Your task to perform on an android device: toggle notifications settings in the gmail app Image 0: 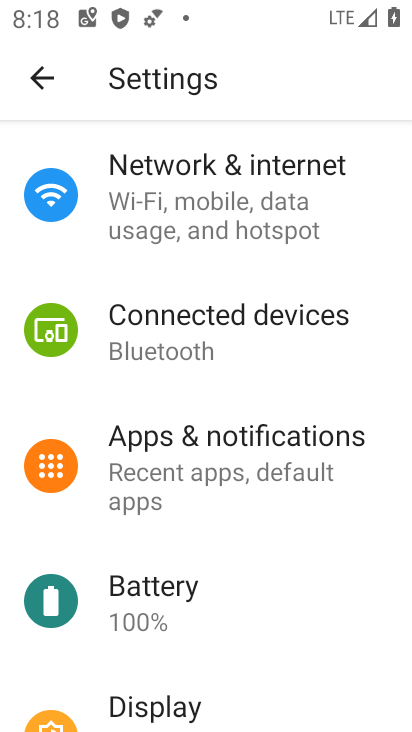
Step 0: press home button
Your task to perform on an android device: toggle notifications settings in the gmail app Image 1: 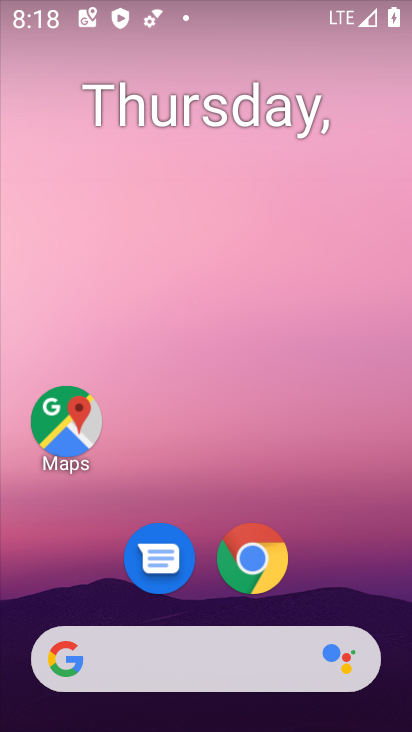
Step 1: drag from (248, 618) to (323, 62)
Your task to perform on an android device: toggle notifications settings in the gmail app Image 2: 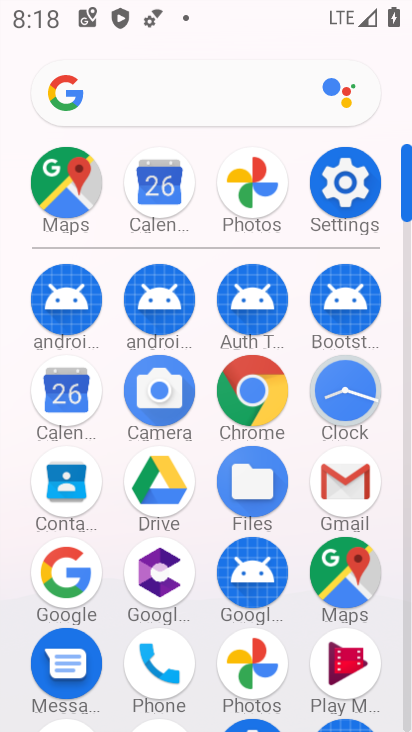
Step 2: click (342, 482)
Your task to perform on an android device: toggle notifications settings in the gmail app Image 3: 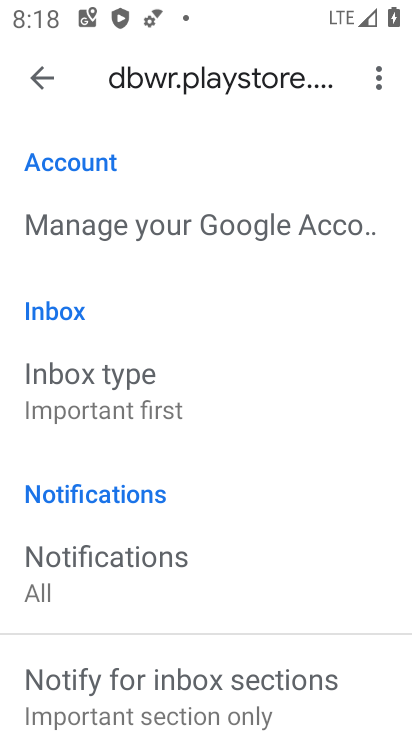
Step 3: click (42, 86)
Your task to perform on an android device: toggle notifications settings in the gmail app Image 4: 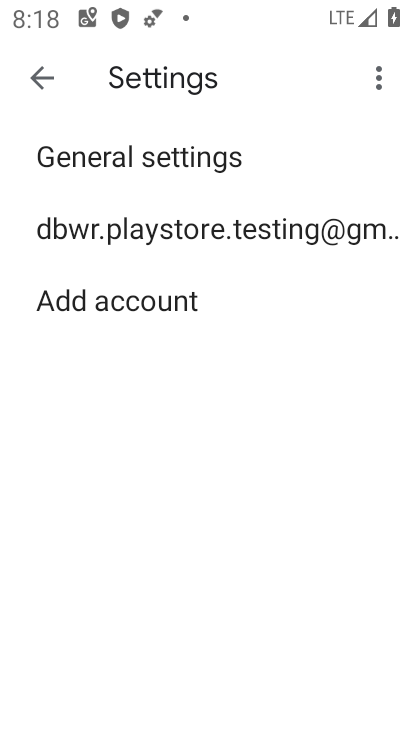
Step 4: click (92, 159)
Your task to perform on an android device: toggle notifications settings in the gmail app Image 5: 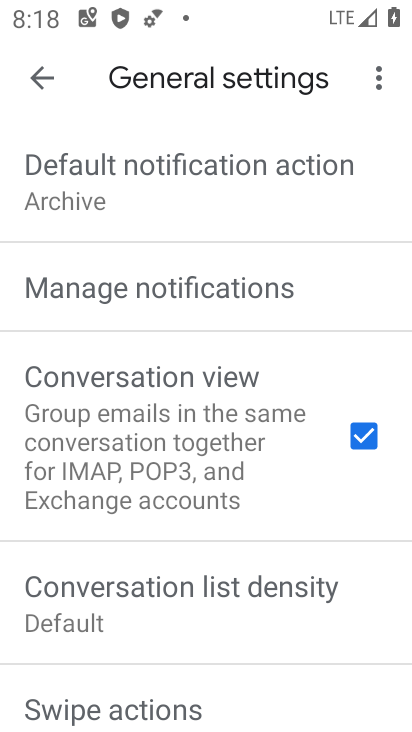
Step 5: click (171, 293)
Your task to perform on an android device: toggle notifications settings in the gmail app Image 6: 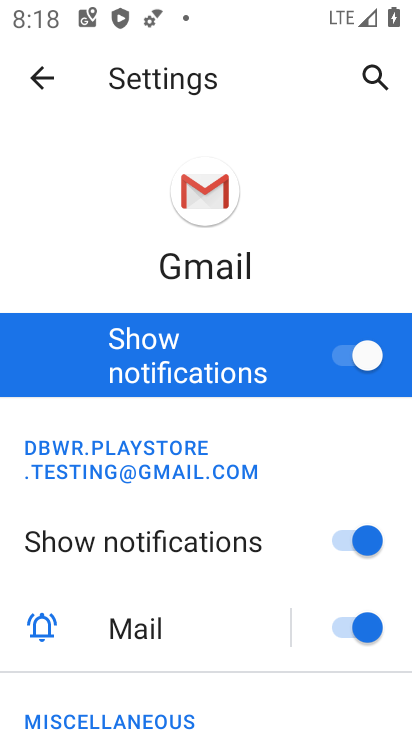
Step 6: click (341, 356)
Your task to perform on an android device: toggle notifications settings in the gmail app Image 7: 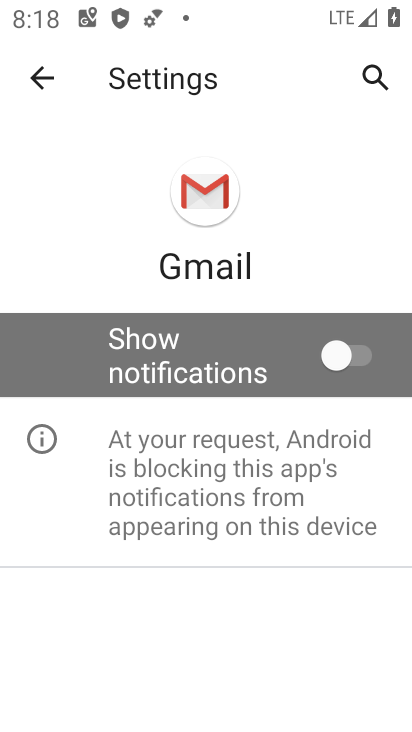
Step 7: task complete